Your task to perform on an android device: see creations saved in the google photos Image 0: 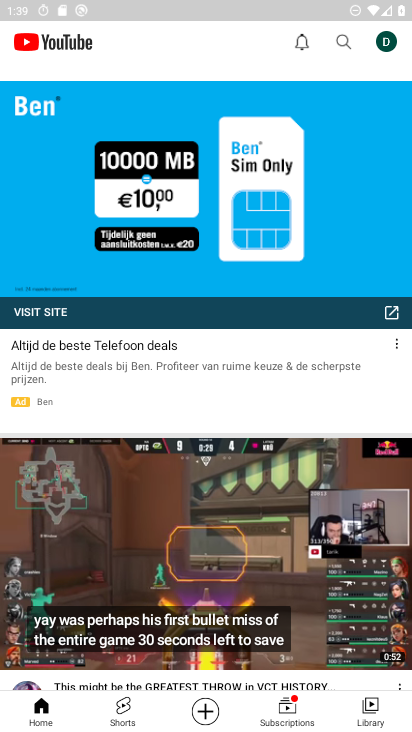
Step 0: drag from (208, 474) to (233, 90)
Your task to perform on an android device: see creations saved in the google photos Image 1: 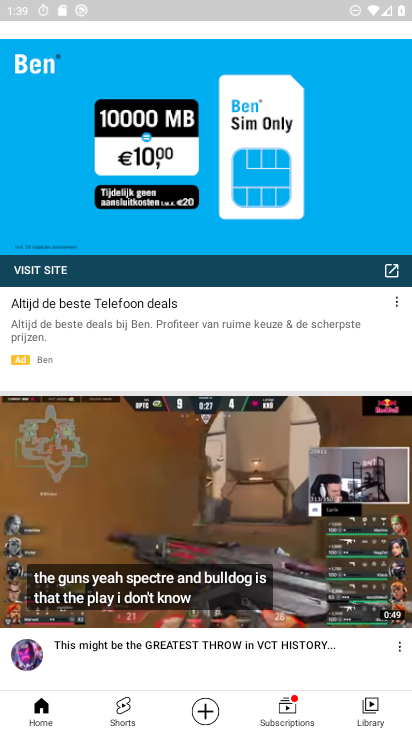
Step 1: click (241, 234)
Your task to perform on an android device: see creations saved in the google photos Image 2: 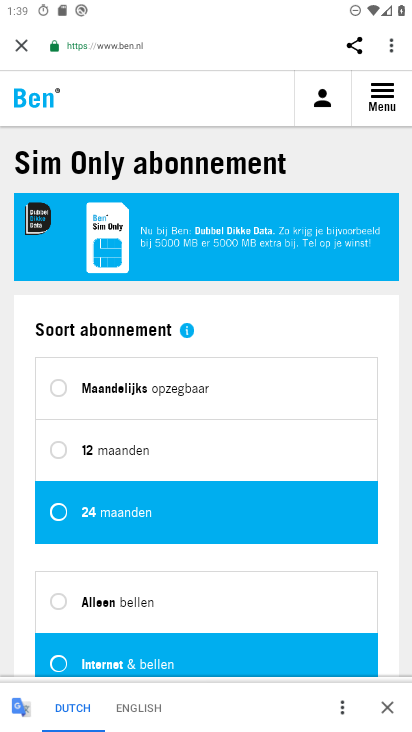
Step 2: drag from (218, 585) to (244, 355)
Your task to perform on an android device: see creations saved in the google photos Image 3: 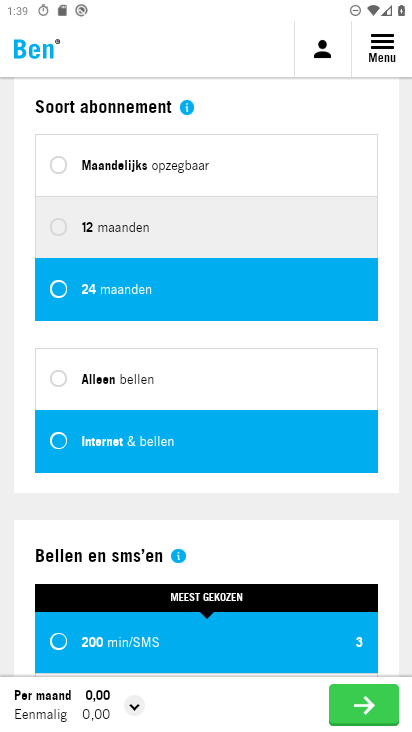
Step 3: drag from (313, 127) to (307, 722)
Your task to perform on an android device: see creations saved in the google photos Image 4: 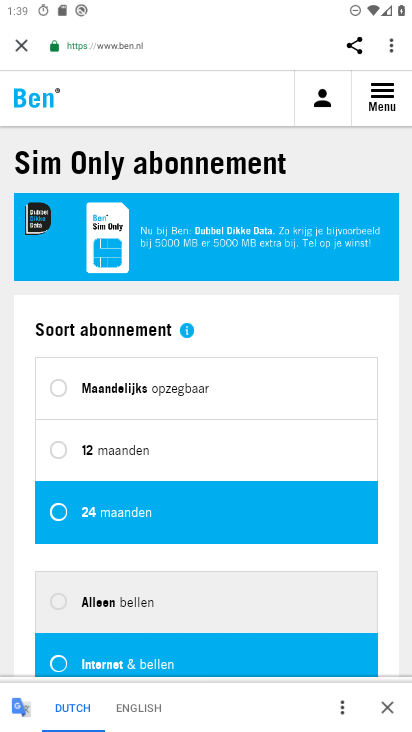
Step 4: click (25, 50)
Your task to perform on an android device: see creations saved in the google photos Image 5: 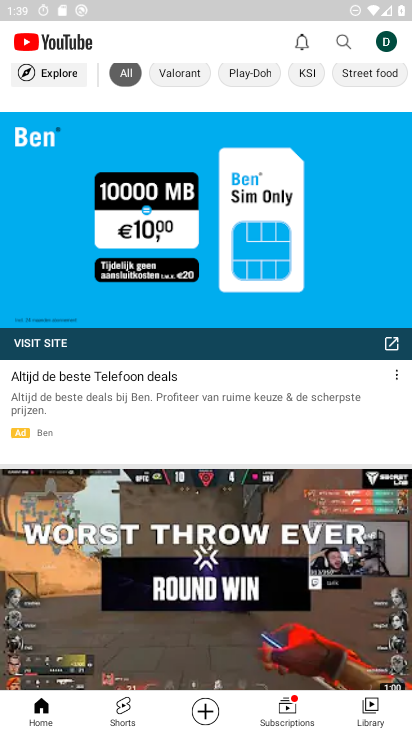
Step 5: press home button
Your task to perform on an android device: see creations saved in the google photos Image 6: 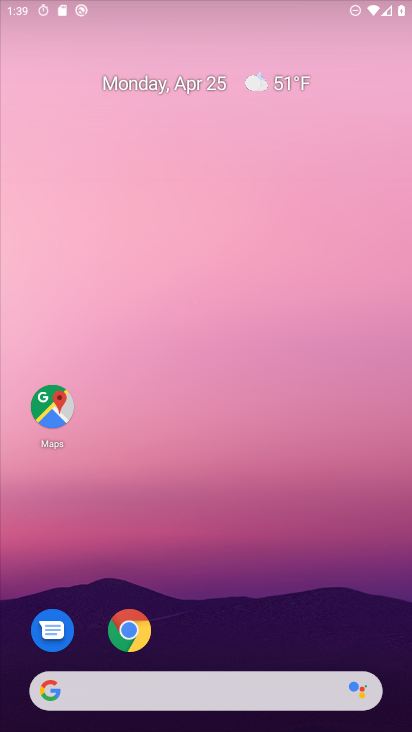
Step 6: drag from (238, 629) to (254, 169)
Your task to perform on an android device: see creations saved in the google photos Image 7: 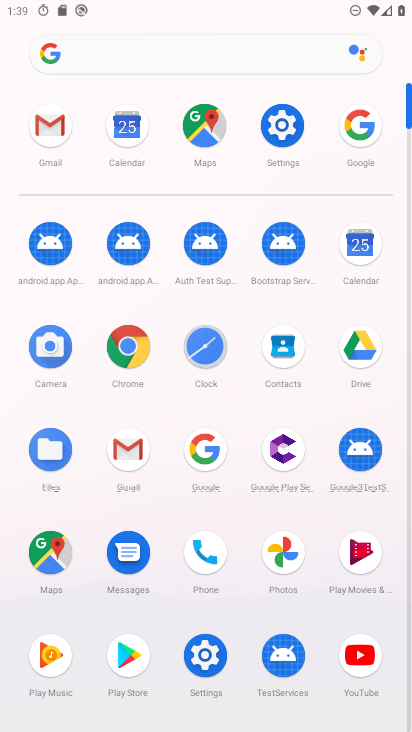
Step 7: click (279, 543)
Your task to perform on an android device: see creations saved in the google photos Image 8: 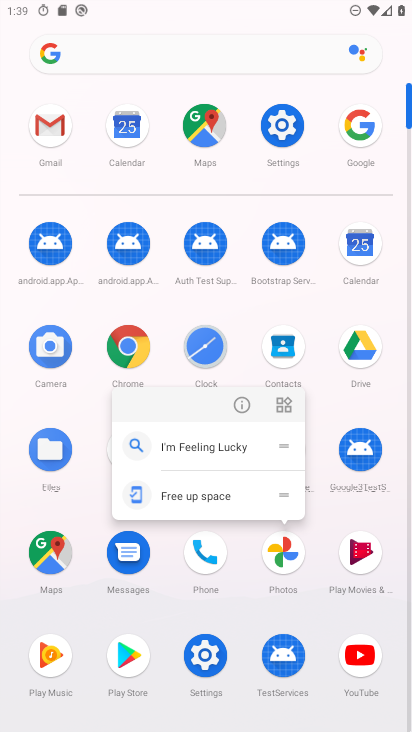
Step 8: click (241, 405)
Your task to perform on an android device: see creations saved in the google photos Image 9: 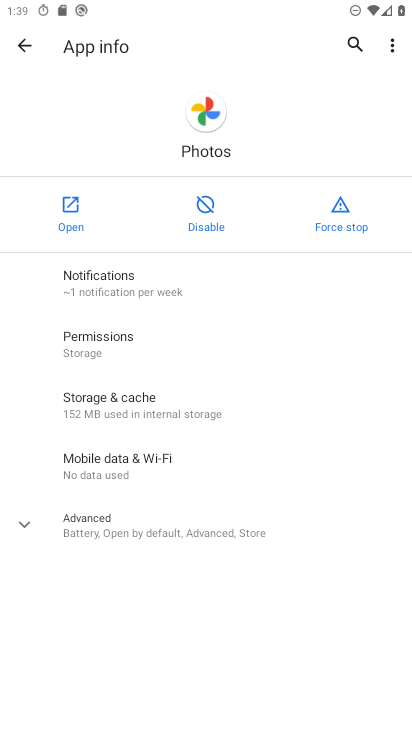
Step 9: click (68, 191)
Your task to perform on an android device: see creations saved in the google photos Image 10: 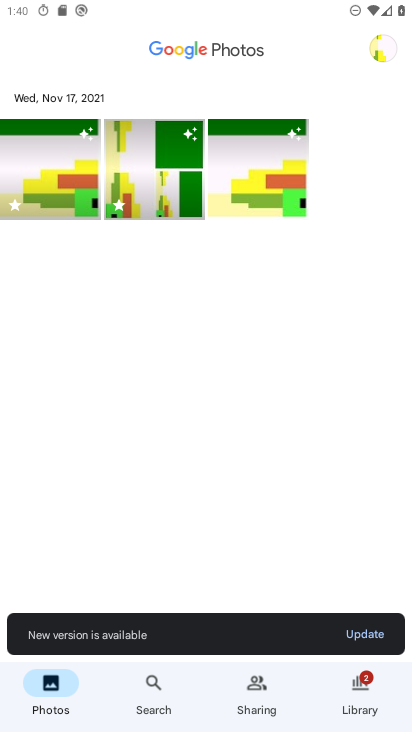
Step 10: click (145, 688)
Your task to perform on an android device: see creations saved in the google photos Image 11: 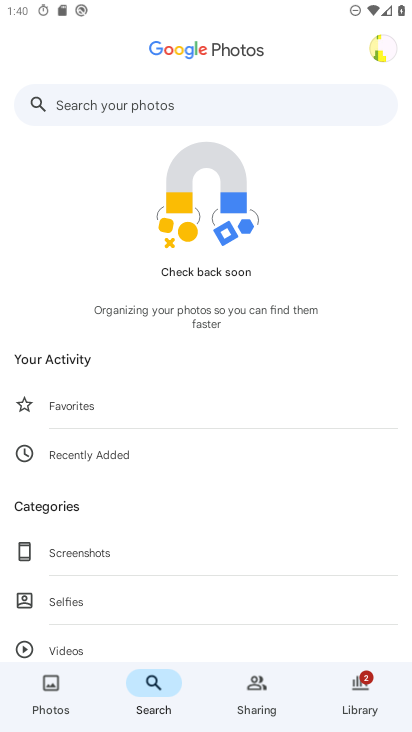
Step 11: drag from (137, 504) to (162, 252)
Your task to perform on an android device: see creations saved in the google photos Image 12: 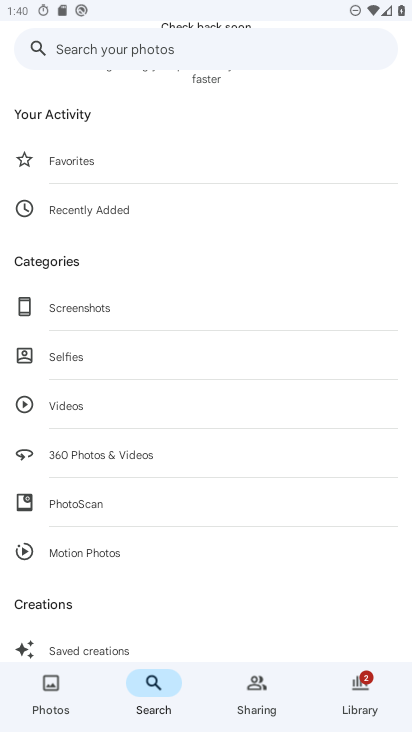
Step 12: drag from (157, 582) to (194, 366)
Your task to perform on an android device: see creations saved in the google photos Image 13: 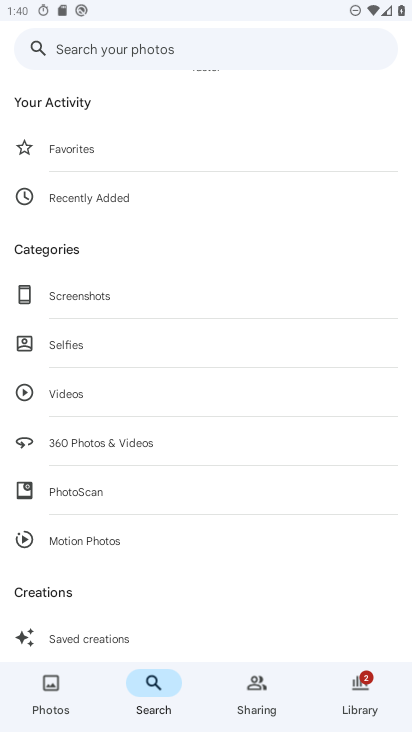
Step 13: click (119, 640)
Your task to perform on an android device: see creations saved in the google photos Image 14: 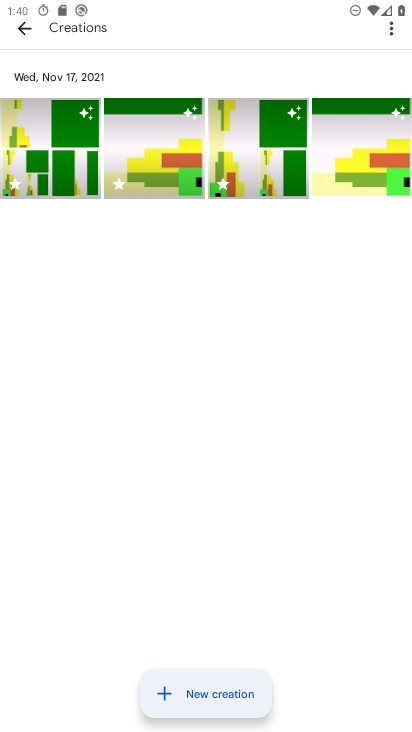
Step 14: drag from (138, 587) to (170, 348)
Your task to perform on an android device: see creations saved in the google photos Image 15: 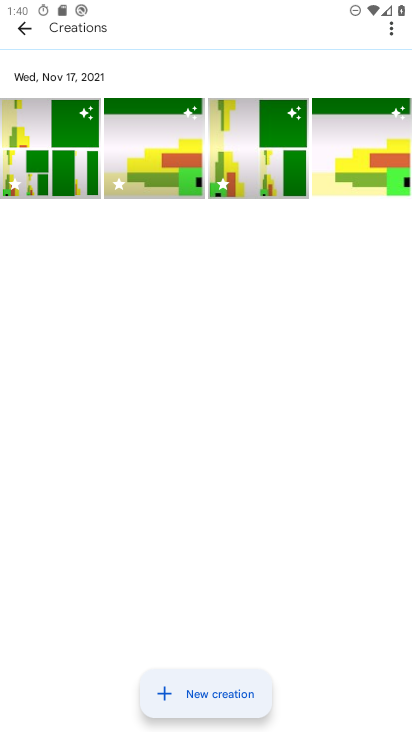
Step 15: click (165, 115)
Your task to perform on an android device: see creations saved in the google photos Image 16: 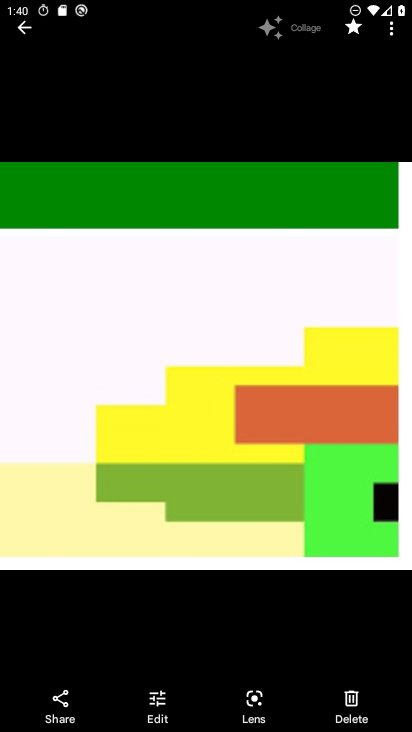
Step 16: task complete